Your task to perform on an android device: all mails in gmail Image 0: 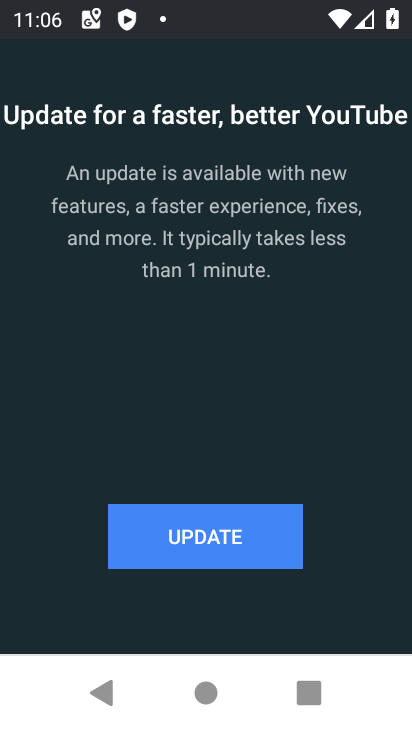
Step 0: press home button
Your task to perform on an android device: all mails in gmail Image 1: 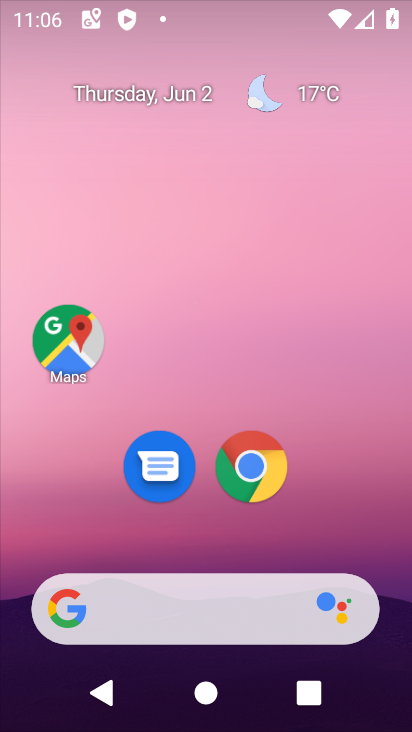
Step 1: drag from (178, 495) to (197, 261)
Your task to perform on an android device: all mails in gmail Image 2: 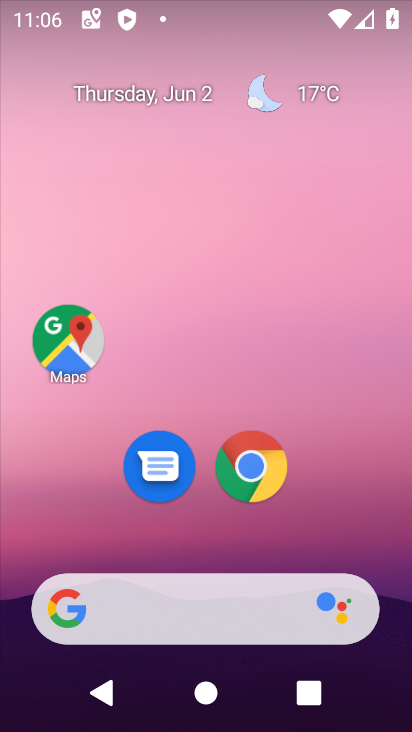
Step 2: drag from (215, 542) to (202, 196)
Your task to perform on an android device: all mails in gmail Image 3: 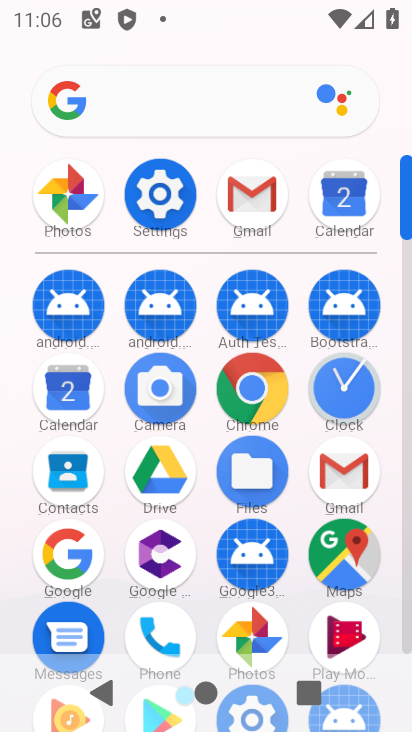
Step 3: click (327, 466)
Your task to perform on an android device: all mails in gmail Image 4: 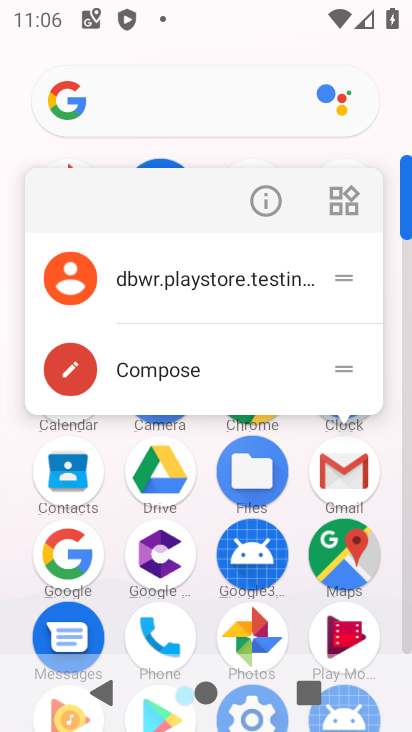
Step 4: click (322, 450)
Your task to perform on an android device: all mails in gmail Image 5: 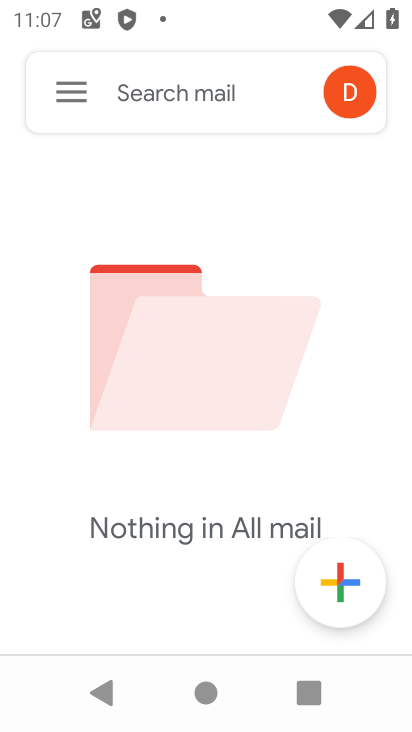
Step 5: task complete